Your task to perform on an android device: see sites visited before in the chrome app Image 0: 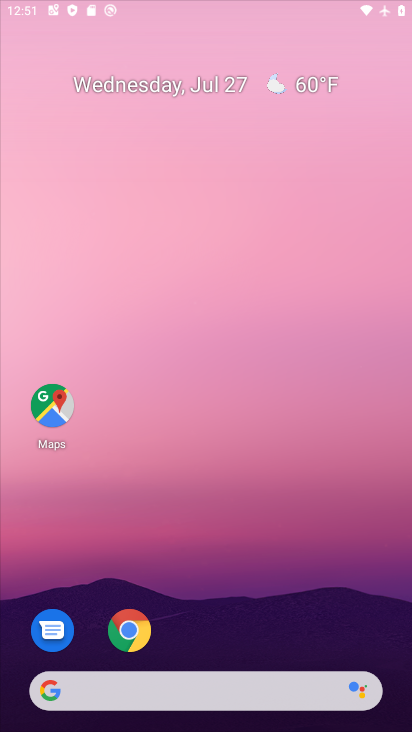
Step 0: press home button
Your task to perform on an android device: see sites visited before in the chrome app Image 1: 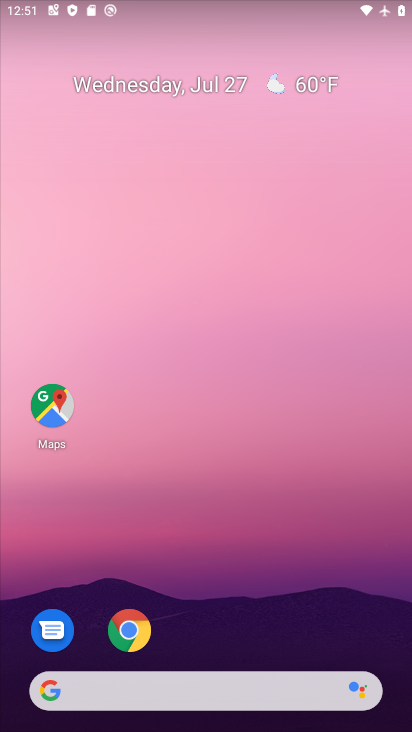
Step 1: drag from (227, 627) to (264, 51)
Your task to perform on an android device: see sites visited before in the chrome app Image 2: 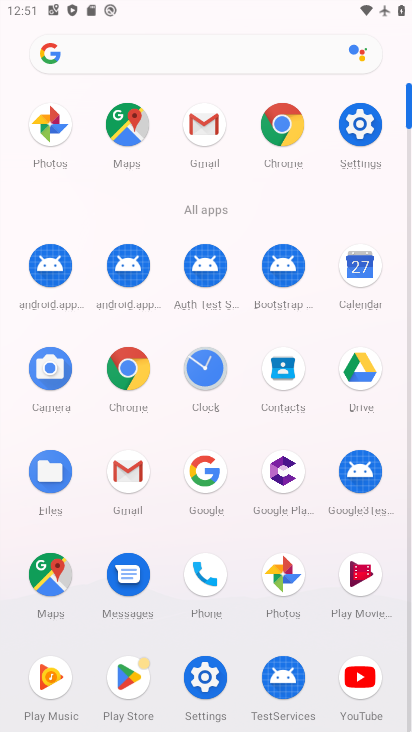
Step 2: click (287, 133)
Your task to perform on an android device: see sites visited before in the chrome app Image 3: 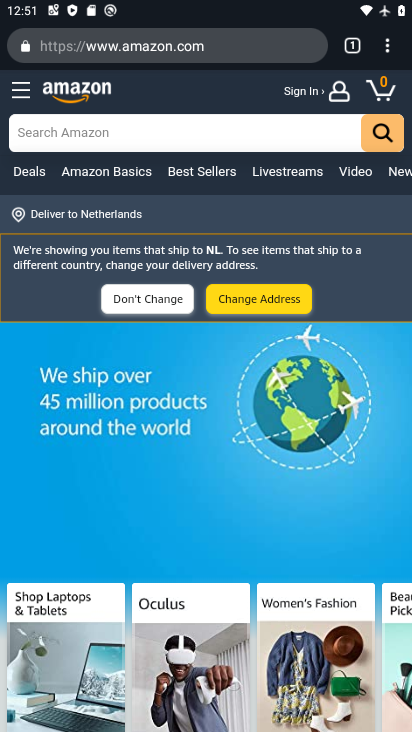
Step 3: task complete